Your task to perform on an android device: change the upload size in google photos Image 0: 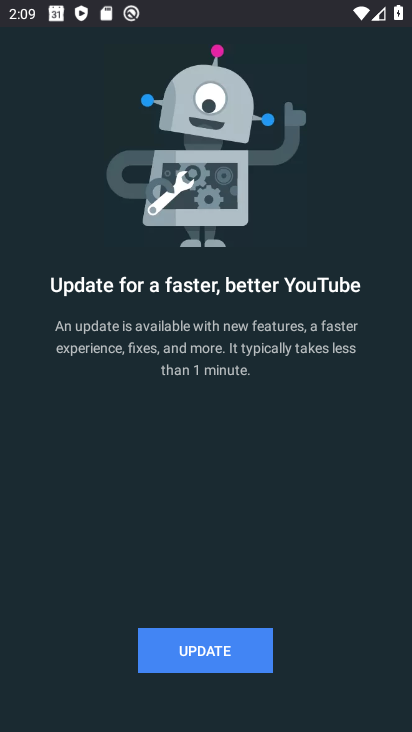
Step 0: press back button
Your task to perform on an android device: change the upload size in google photos Image 1: 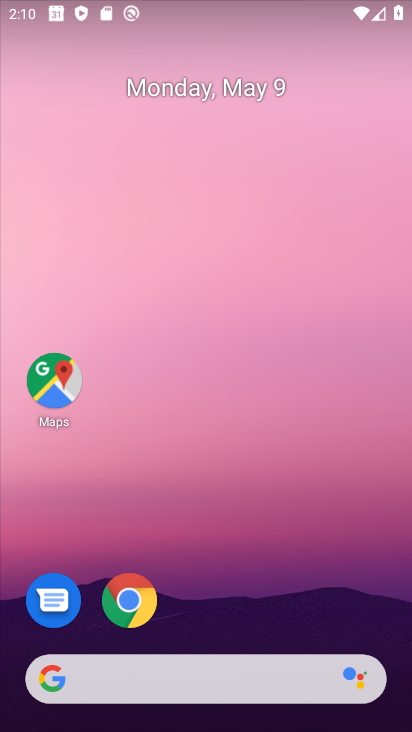
Step 1: drag from (277, 578) to (243, 8)
Your task to perform on an android device: change the upload size in google photos Image 2: 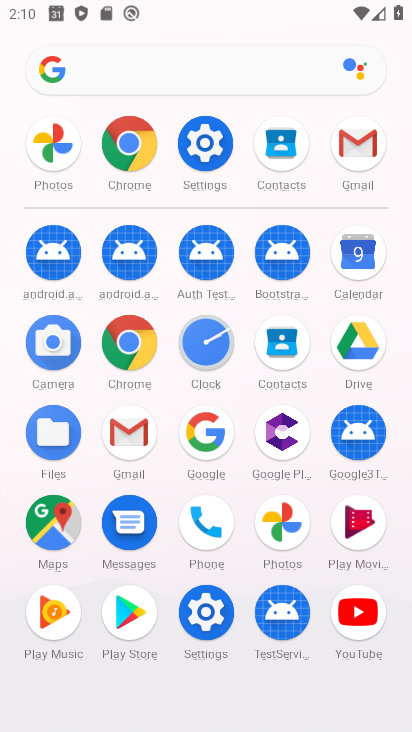
Step 2: drag from (8, 527) to (1, 256)
Your task to perform on an android device: change the upload size in google photos Image 3: 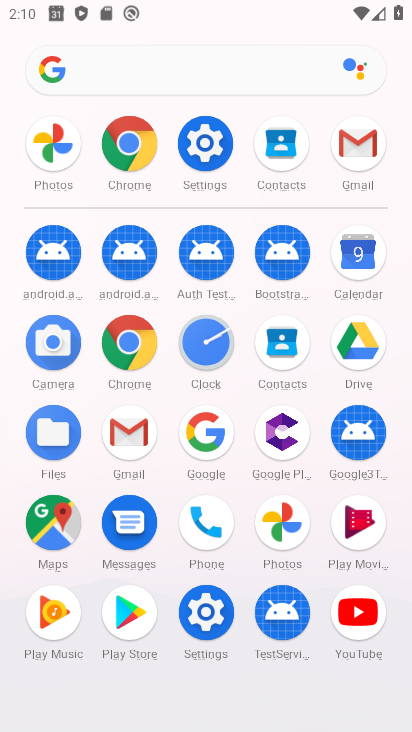
Step 3: click (278, 518)
Your task to perform on an android device: change the upload size in google photos Image 4: 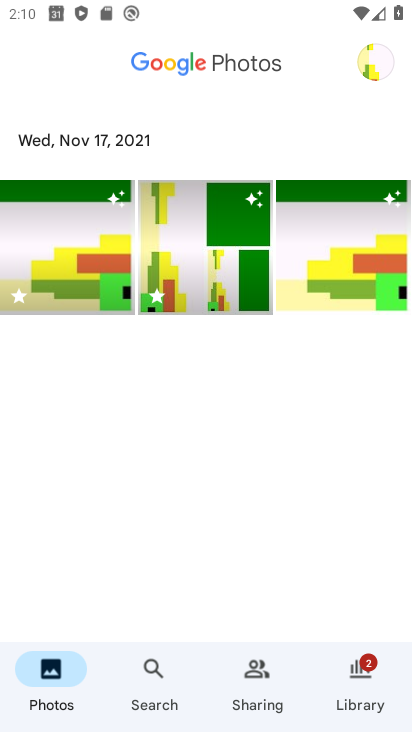
Step 4: click (362, 55)
Your task to perform on an android device: change the upload size in google photos Image 5: 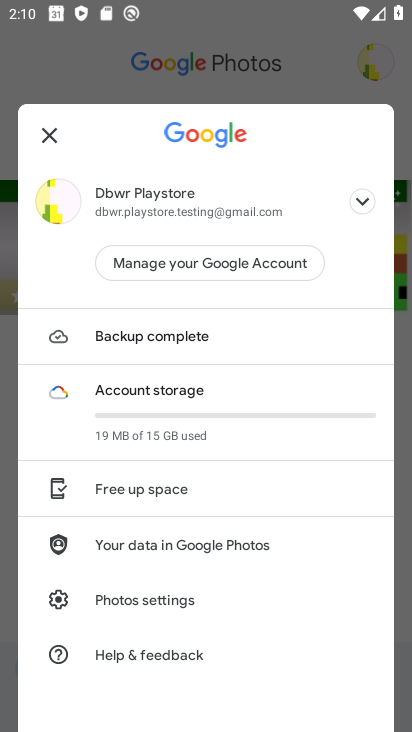
Step 5: click (187, 602)
Your task to perform on an android device: change the upload size in google photos Image 6: 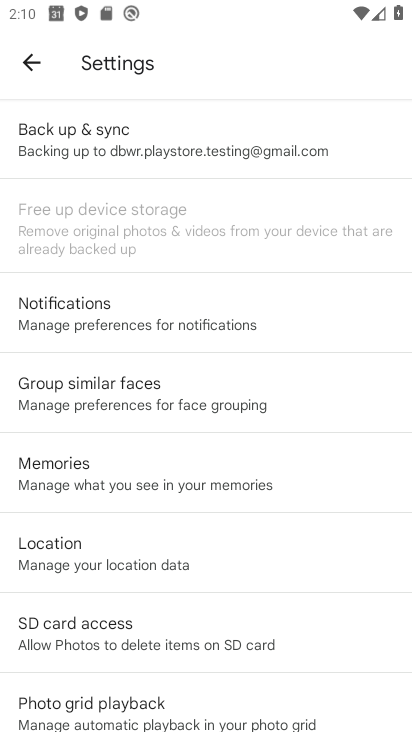
Step 6: click (157, 145)
Your task to perform on an android device: change the upload size in google photos Image 7: 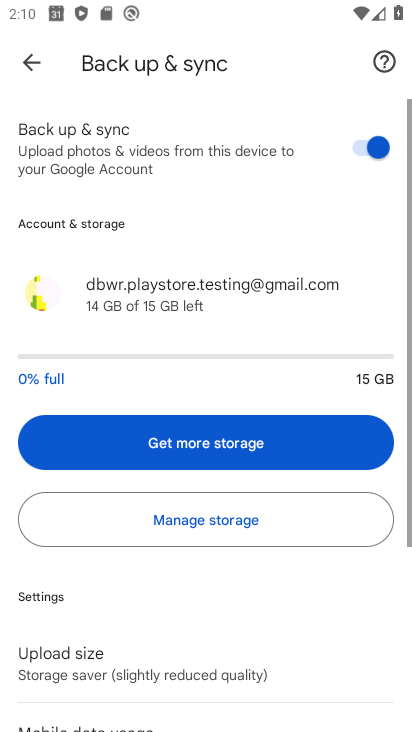
Step 7: drag from (239, 592) to (249, 95)
Your task to perform on an android device: change the upload size in google photos Image 8: 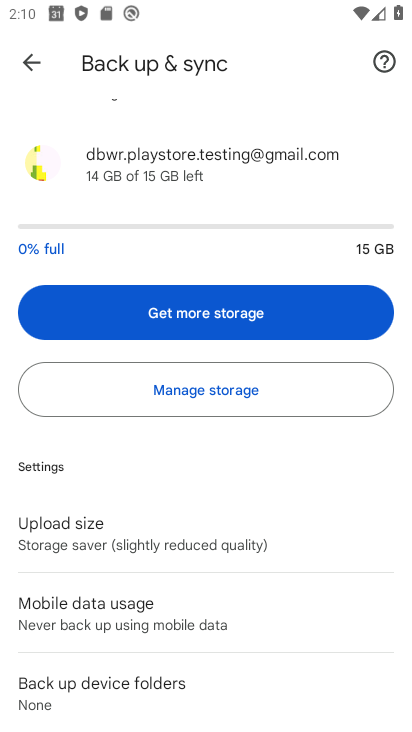
Step 8: click (163, 518)
Your task to perform on an android device: change the upload size in google photos Image 9: 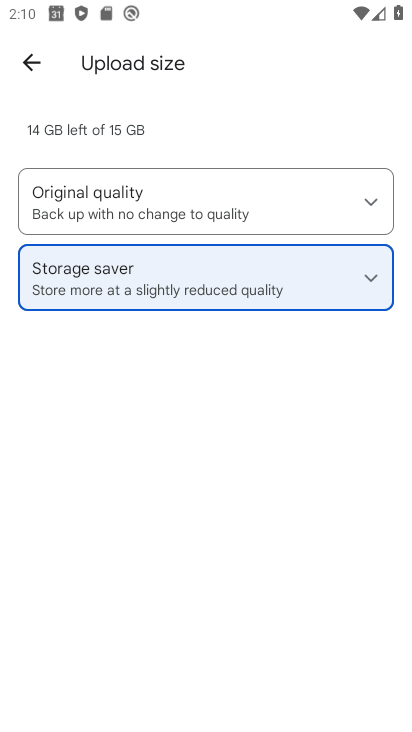
Step 9: click (174, 200)
Your task to perform on an android device: change the upload size in google photos Image 10: 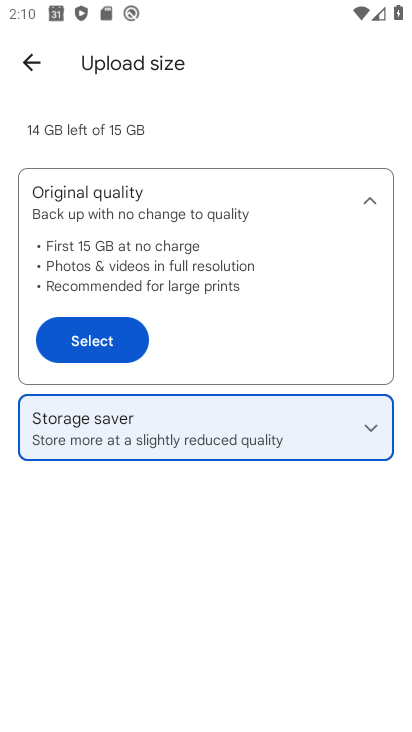
Step 10: click (100, 353)
Your task to perform on an android device: change the upload size in google photos Image 11: 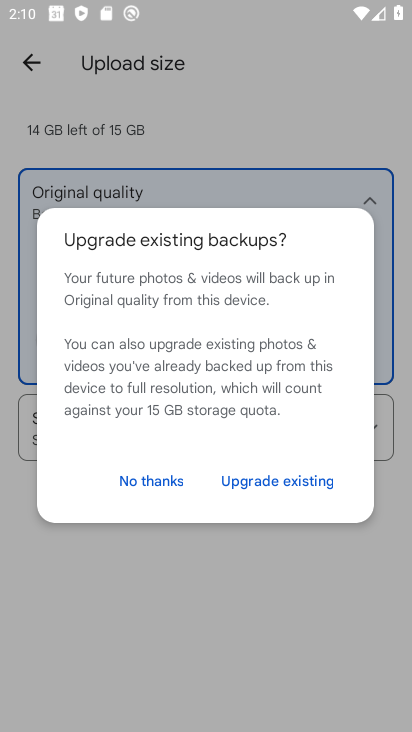
Step 11: click (149, 480)
Your task to perform on an android device: change the upload size in google photos Image 12: 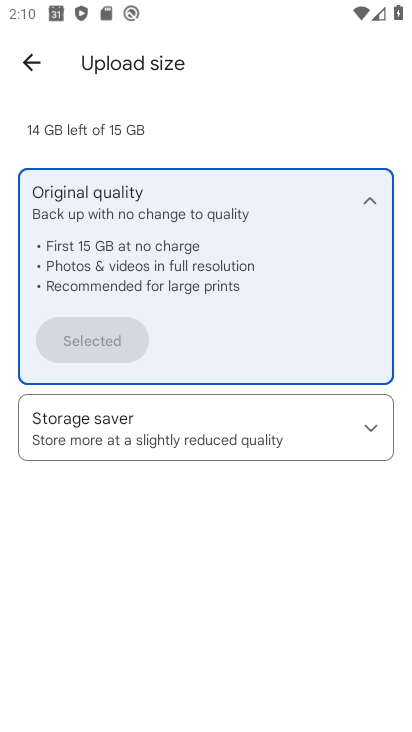
Step 12: task complete